Your task to perform on an android device: visit the assistant section in the google photos Image 0: 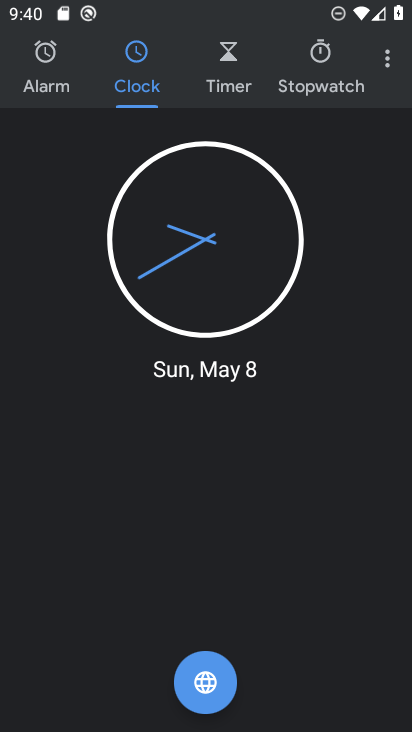
Step 0: press home button
Your task to perform on an android device: visit the assistant section in the google photos Image 1: 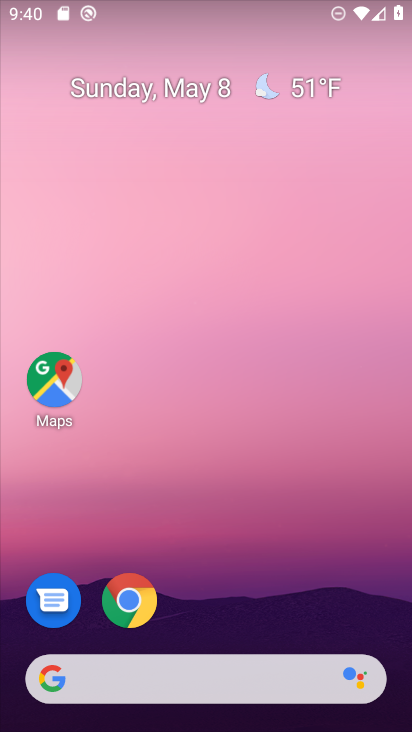
Step 1: drag from (336, 448) to (292, 12)
Your task to perform on an android device: visit the assistant section in the google photos Image 2: 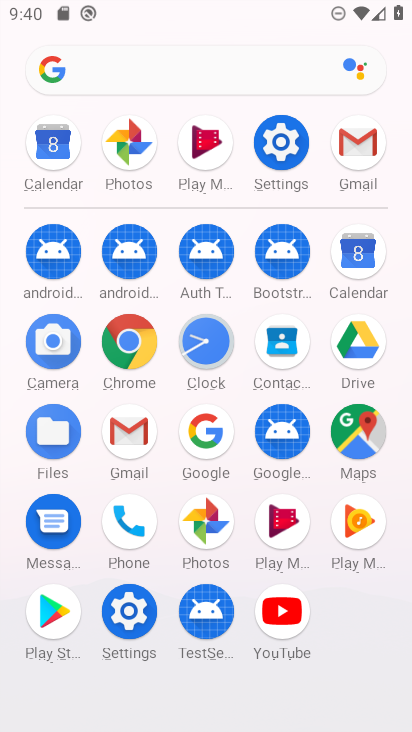
Step 2: click (207, 522)
Your task to perform on an android device: visit the assistant section in the google photos Image 3: 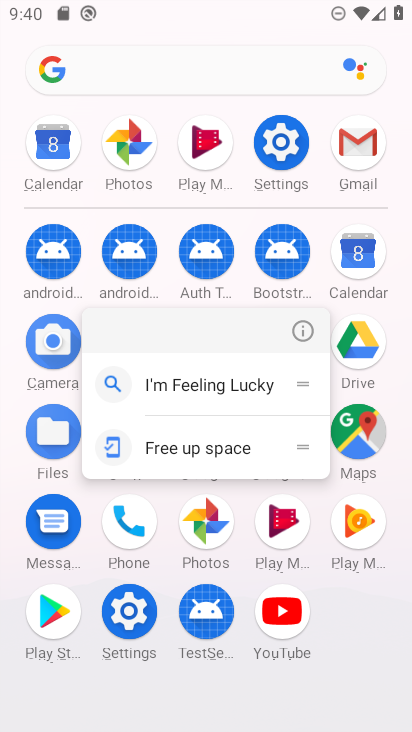
Step 3: click (207, 522)
Your task to perform on an android device: visit the assistant section in the google photos Image 4: 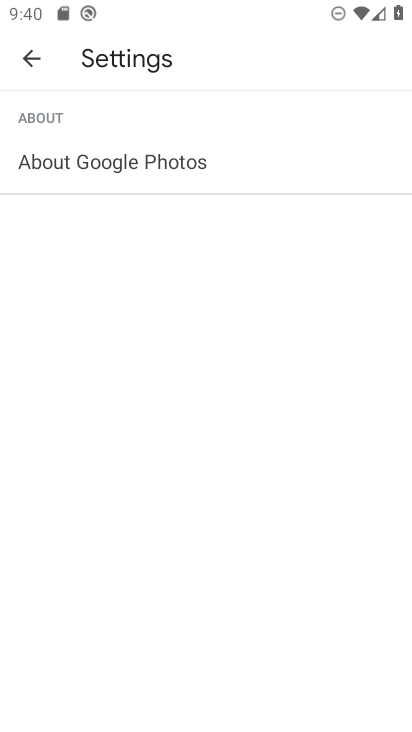
Step 4: click (27, 72)
Your task to perform on an android device: visit the assistant section in the google photos Image 5: 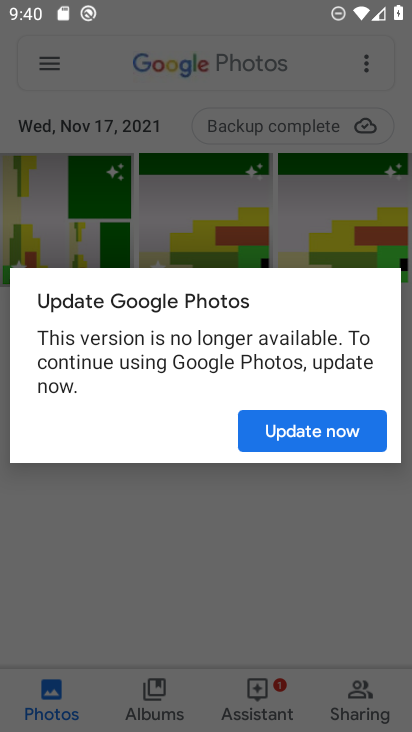
Step 5: click (271, 439)
Your task to perform on an android device: visit the assistant section in the google photos Image 6: 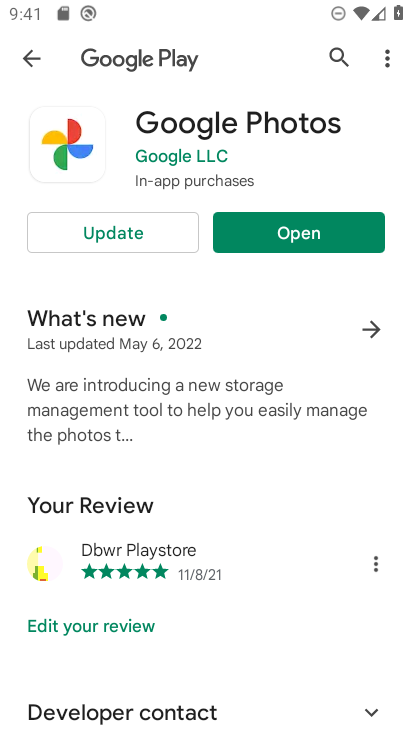
Step 6: click (273, 227)
Your task to perform on an android device: visit the assistant section in the google photos Image 7: 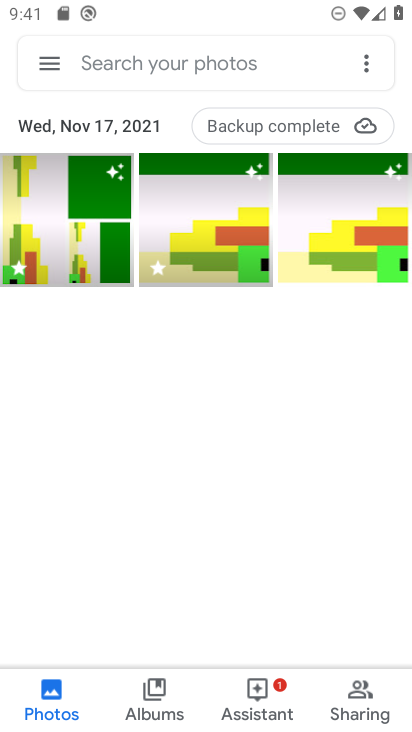
Step 7: click (257, 712)
Your task to perform on an android device: visit the assistant section in the google photos Image 8: 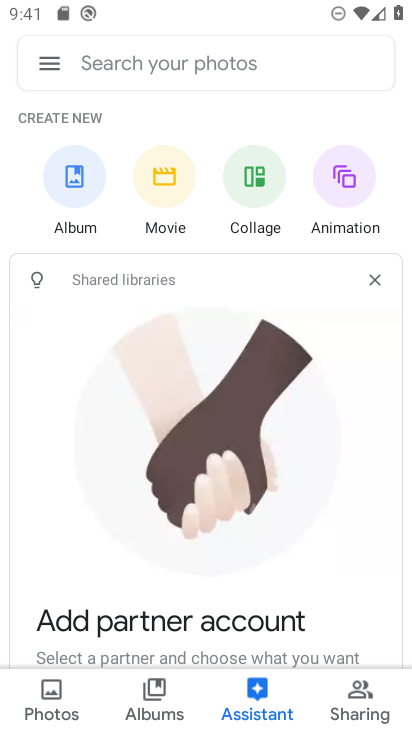
Step 8: task complete